Your task to perform on an android device: Open the calendar app, open the side menu, and click the "Day" option Image 0: 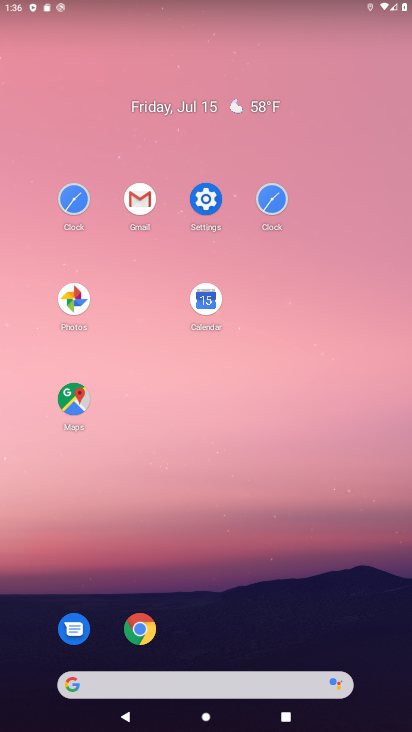
Step 0: click (210, 305)
Your task to perform on an android device: Open the calendar app, open the side menu, and click the "Day" option Image 1: 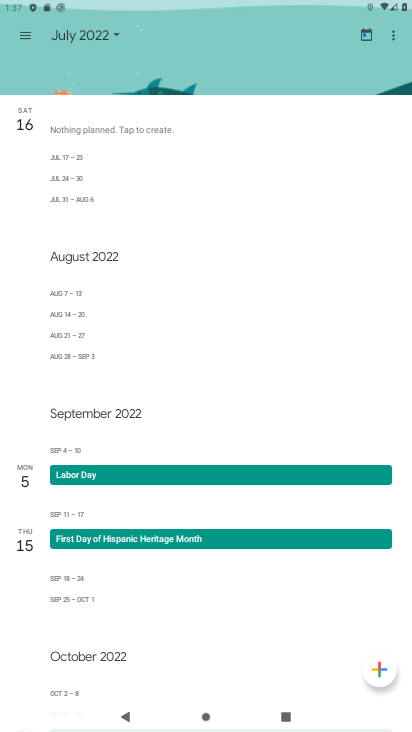
Step 1: click (31, 41)
Your task to perform on an android device: Open the calendar app, open the side menu, and click the "Day" option Image 2: 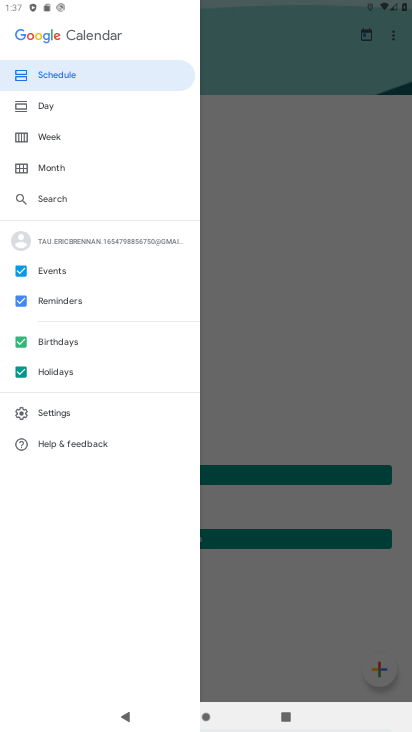
Step 2: click (54, 115)
Your task to perform on an android device: Open the calendar app, open the side menu, and click the "Day" option Image 3: 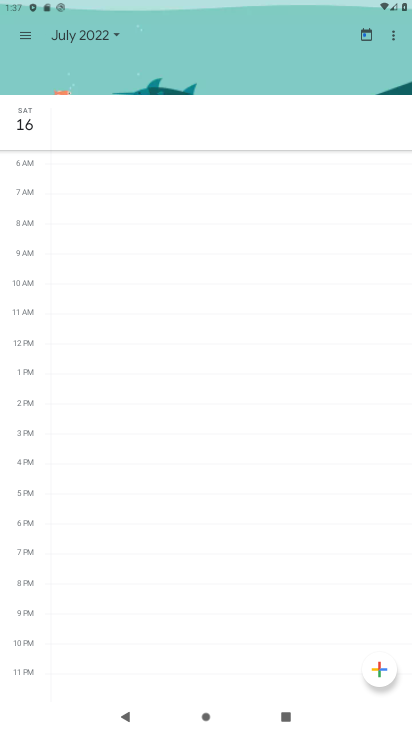
Step 3: task complete